Your task to perform on an android device: turn off picture-in-picture Image 0: 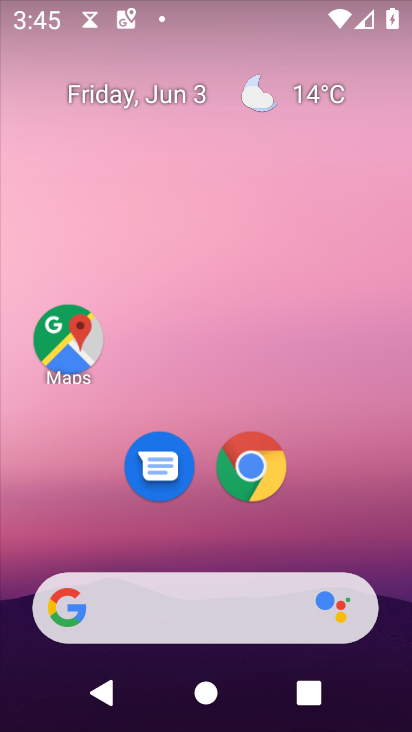
Step 0: drag from (310, 515) to (327, 38)
Your task to perform on an android device: turn off picture-in-picture Image 1: 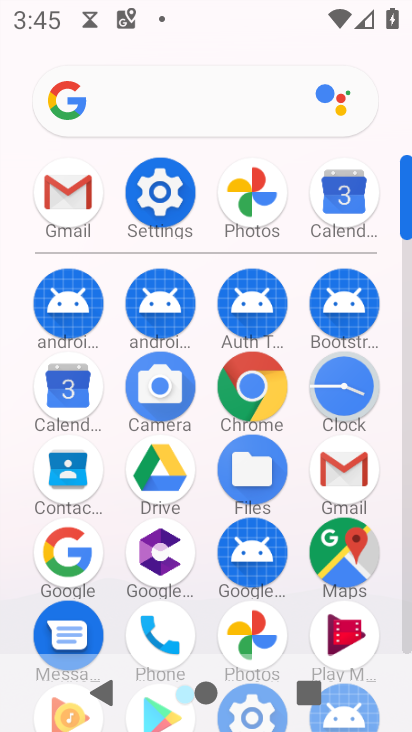
Step 1: click (160, 175)
Your task to perform on an android device: turn off picture-in-picture Image 2: 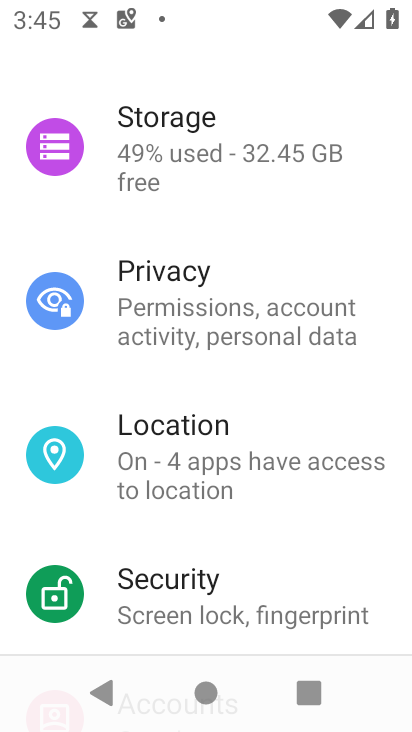
Step 2: drag from (201, 130) to (210, 603)
Your task to perform on an android device: turn off picture-in-picture Image 3: 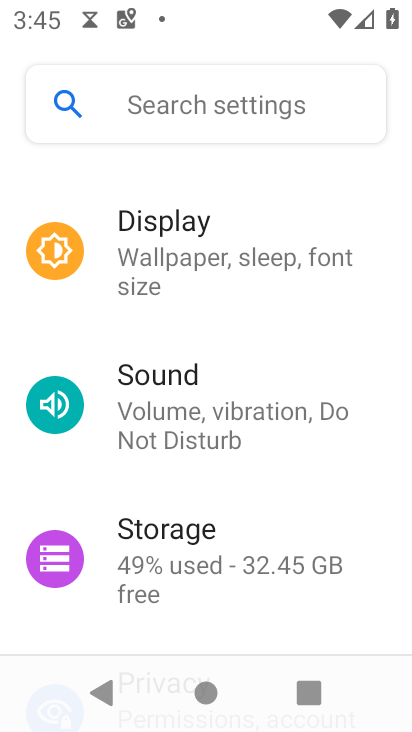
Step 3: click (161, 108)
Your task to perform on an android device: turn off picture-in-picture Image 4: 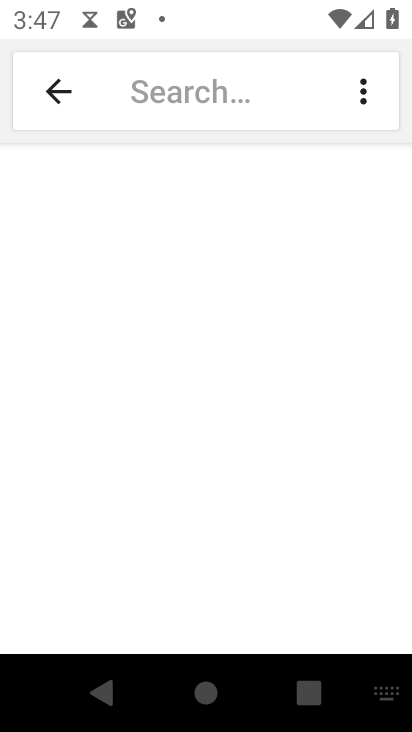
Step 4: type "picture-in-picture"
Your task to perform on an android device: turn off picture-in-picture Image 5: 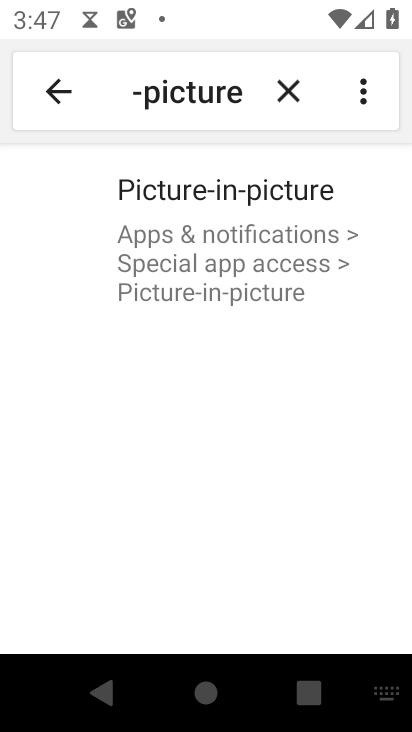
Step 5: click (282, 256)
Your task to perform on an android device: turn off picture-in-picture Image 6: 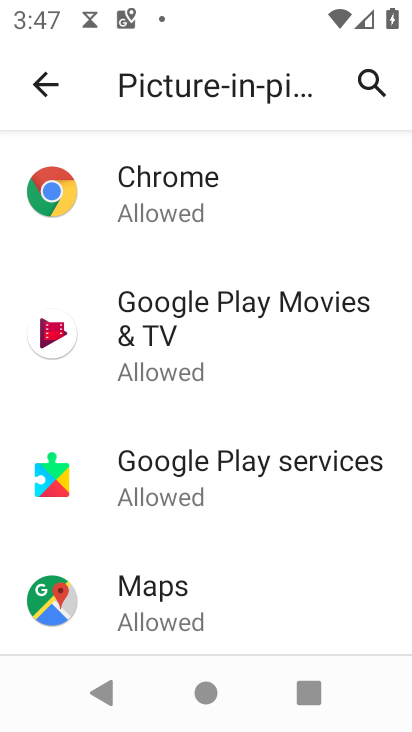
Step 6: click (203, 192)
Your task to perform on an android device: turn off picture-in-picture Image 7: 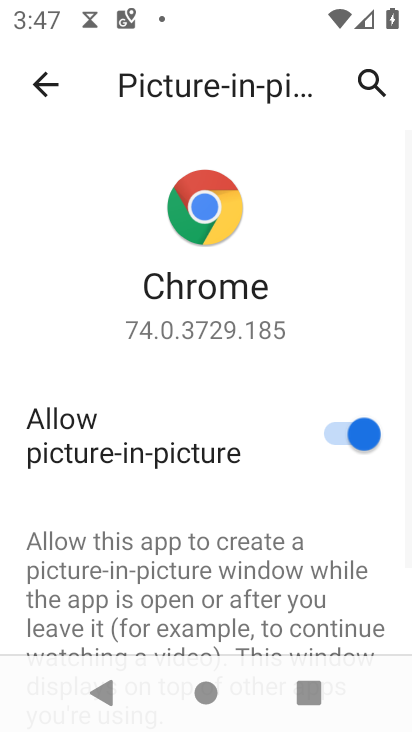
Step 7: click (353, 424)
Your task to perform on an android device: turn off picture-in-picture Image 8: 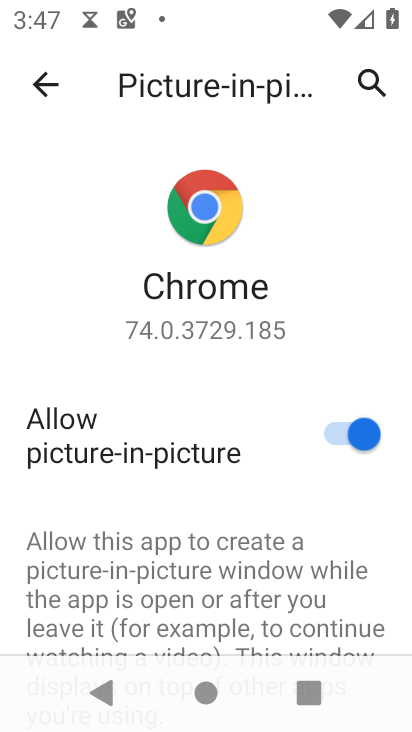
Step 8: click (355, 423)
Your task to perform on an android device: turn off picture-in-picture Image 9: 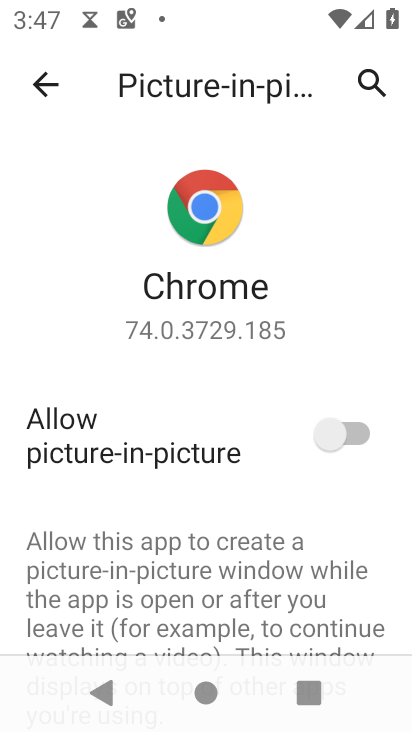
Step 9: click (21, 101)
Your task to perform on an android device: turn off picture-in-picture Image 10: 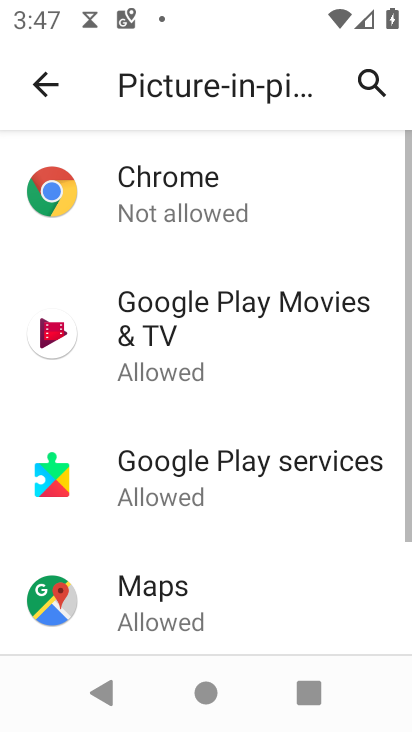
Step 10: click (251, 322)
Your task to perform on an android device: turn off picture-in-picture Image 11: 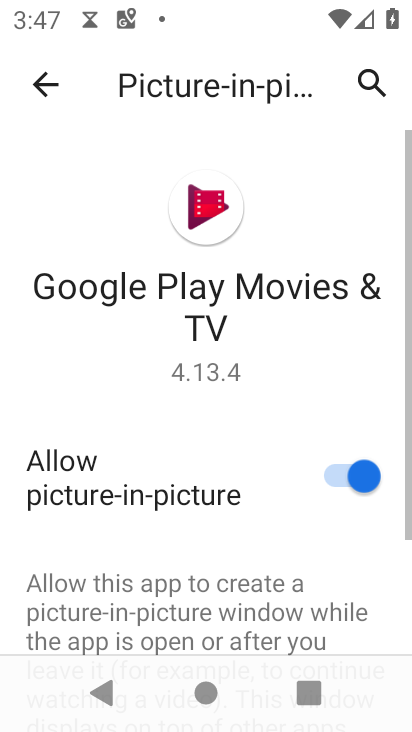
Step 11: click (359, 466)
Your task to perform on an android device: turn off picture-in-picture Image 12: 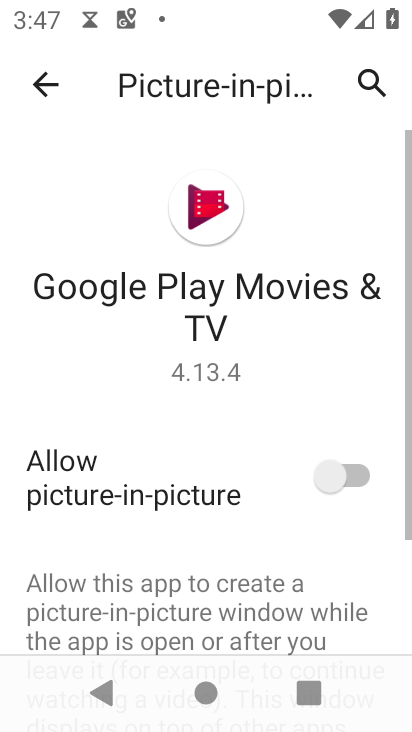
Step 12: click (41, 78)
Your task to perform on an android device: turn off picture-in-picture Image 13: 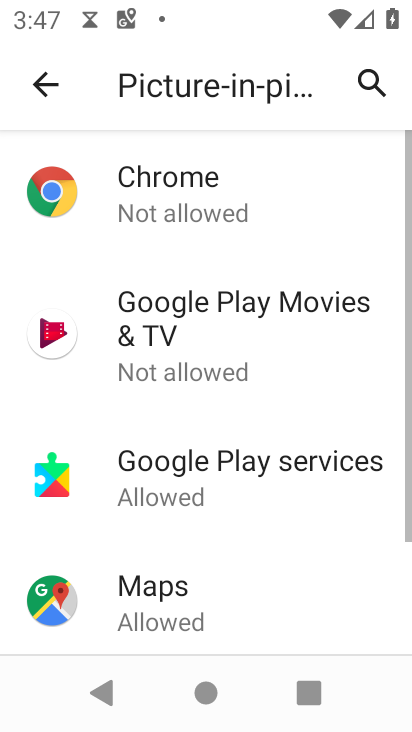
Step 13: click (246, 467)
Your task to perform on an android device: turn off picture-in-picture Image 14: 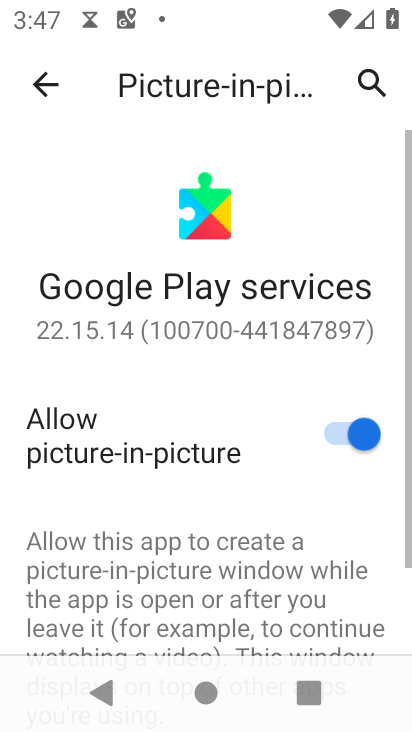
Step 14: click (360, 438)
Your task to perform on an android device: turn off picture-in-picture Image 15: 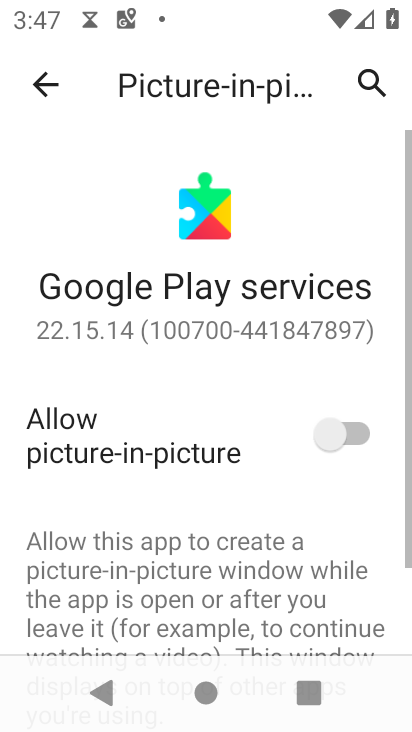
Step 15: click (40, 77)
Your task to perform on an android device: turn off picture-in-picture Image 16: 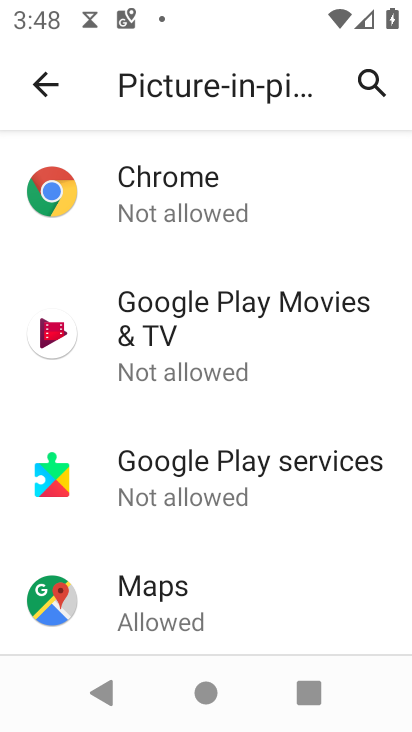
Step 16: click (157, 615)
Your task to perform on an android device: turn off picture-in-picture Image 17: 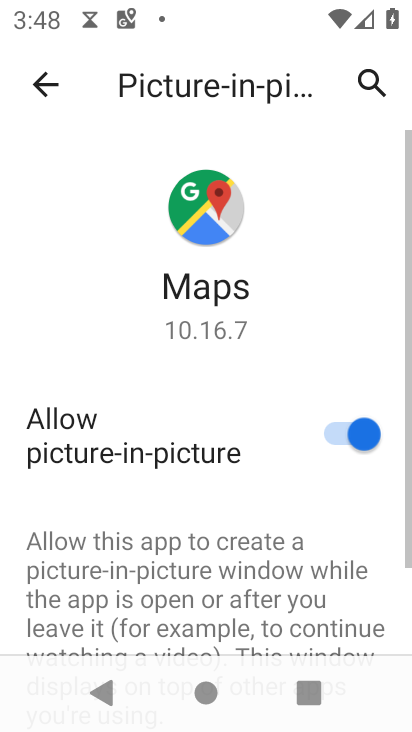
Step 17: click (346, 432)
Your task to perform on an android device: turn off picture-in-picture Image 18: 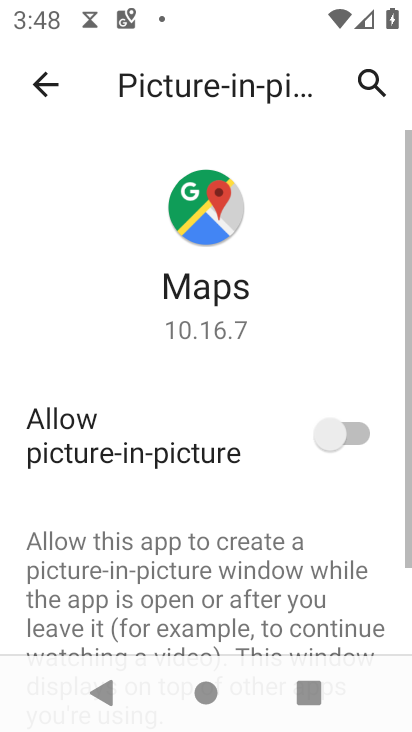
Step 18: click (47, 87)
Your task to perform on an android device: turn off picture-in-picture Image 19: 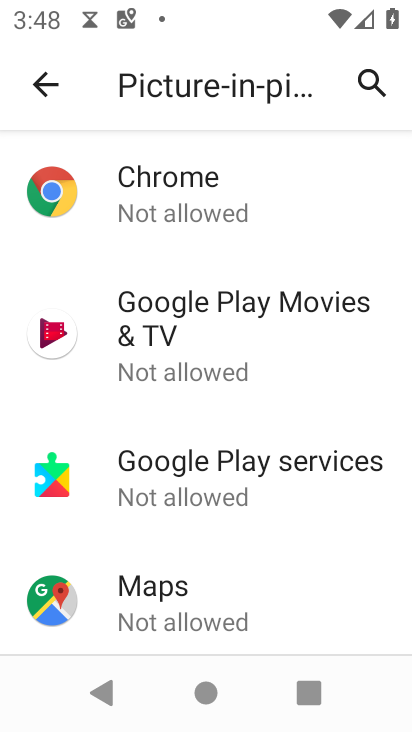
Step 19: drag from (245, 616) to (209, 201)
Your task to perform on an android device: turn off picture-in-picture Image 20: 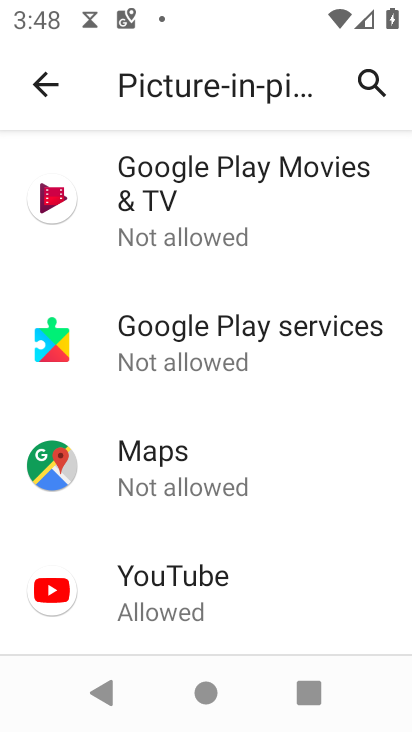
Step 20: click (205, 573)
Your task to perform on an android device: turn off picture-in-picture Image 21: 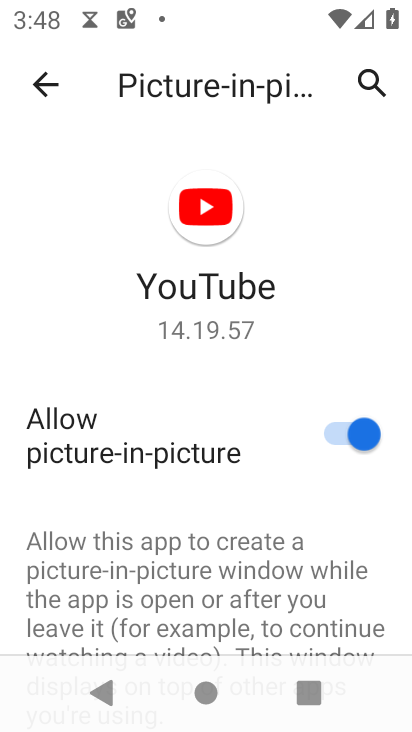
Step 21: click (352, 429)
Your task to perform on an android device: turn off picture-in-picture Image 22: 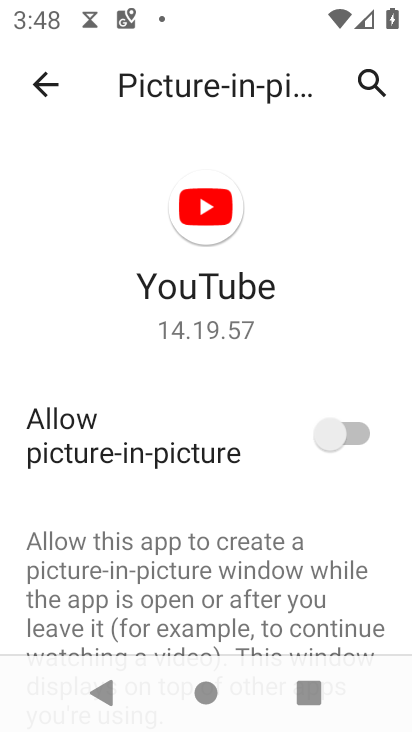
Step 22: task complete